Your task to perform on an android device: change your default location settings in chrome Image 0: 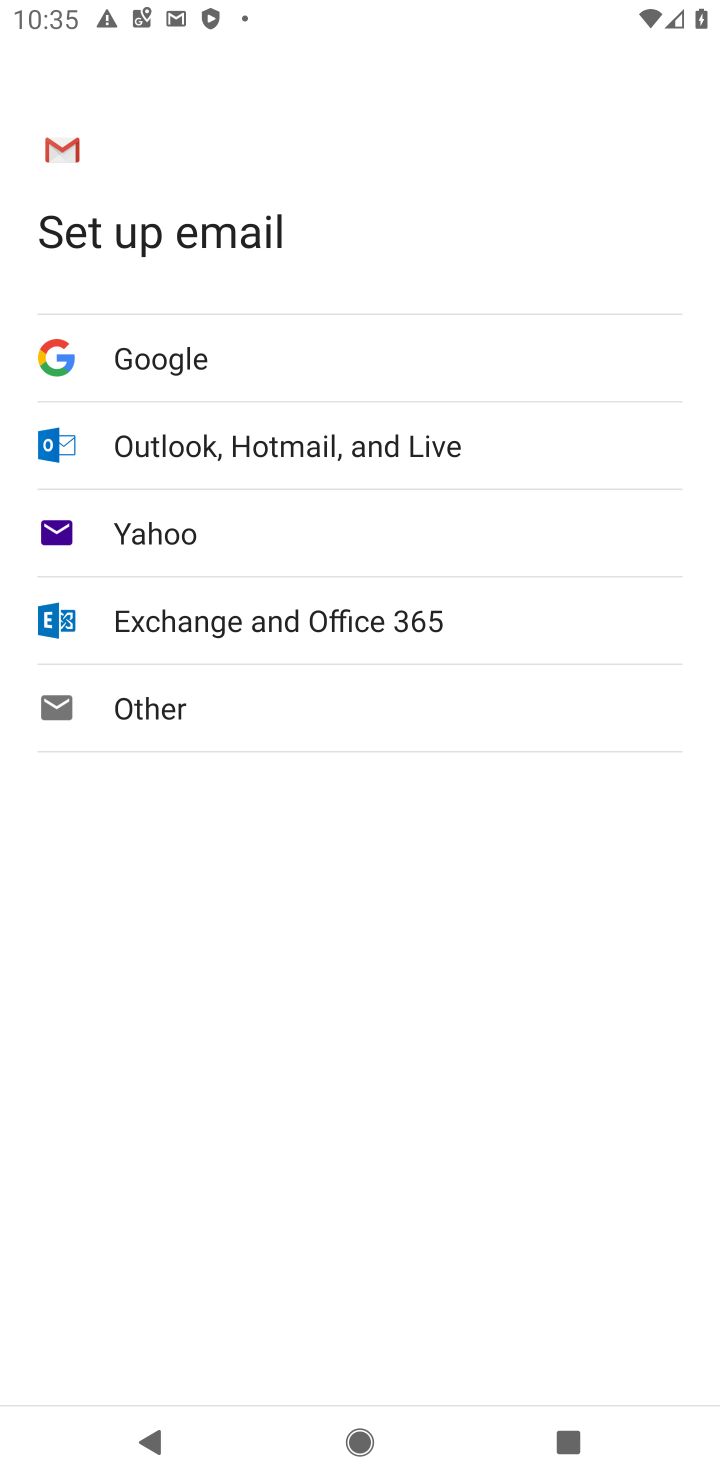
Step 0: press home button
Your task to perform on an android device: change your default location settings in chrome Image 1: 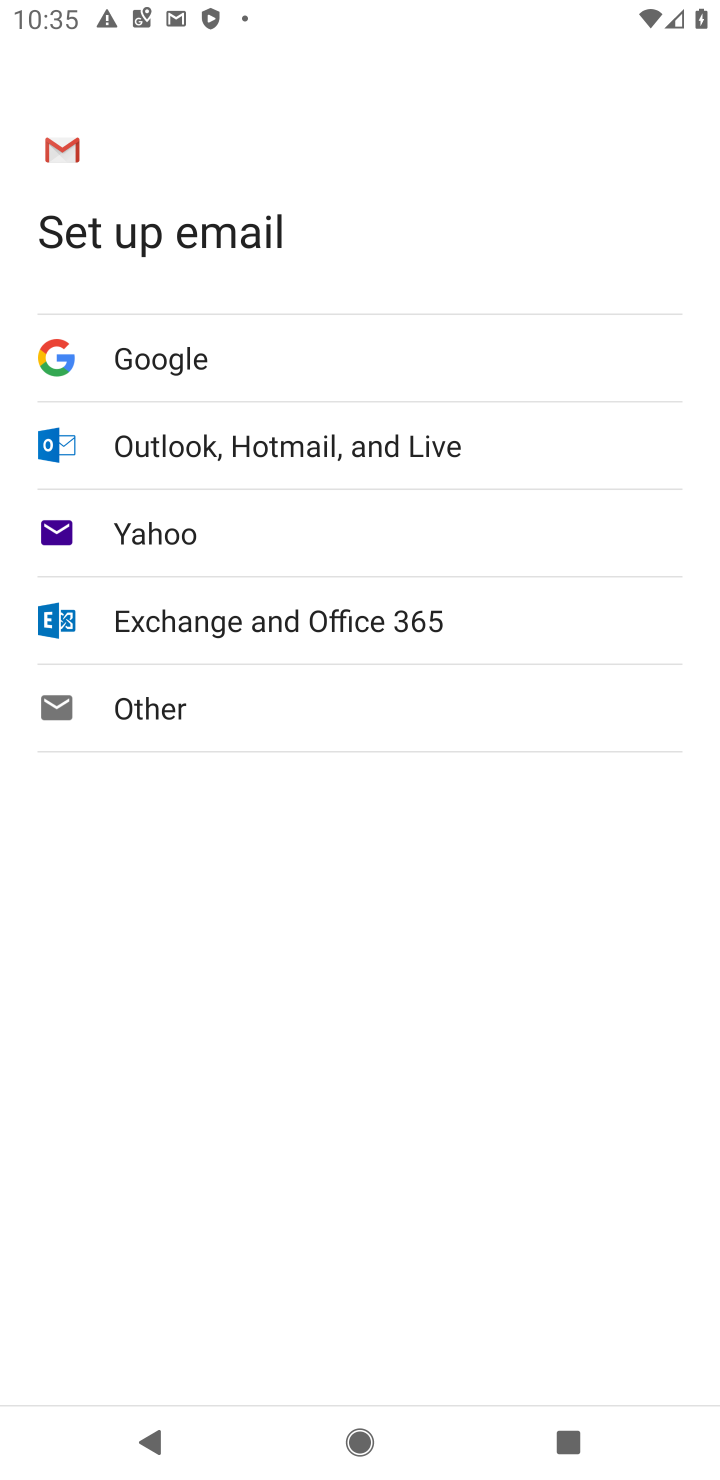
Step 1: drag from (294, 1048) to (589, 0)
Your task to perform on an android device: change your default location settings in chrome Image 2: 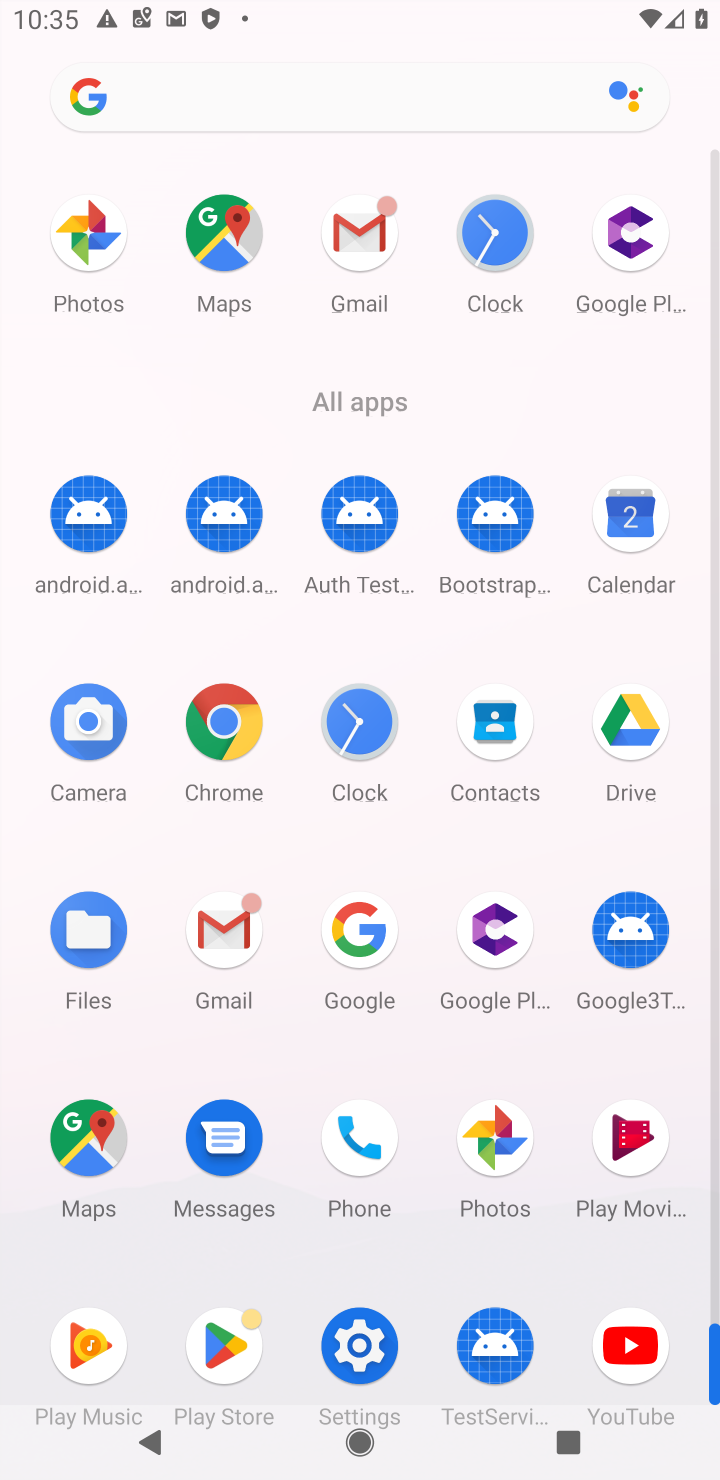
Step 2: click (215, 688)
Your task to perform on an android device: change your default location settings in chrome Image 3: 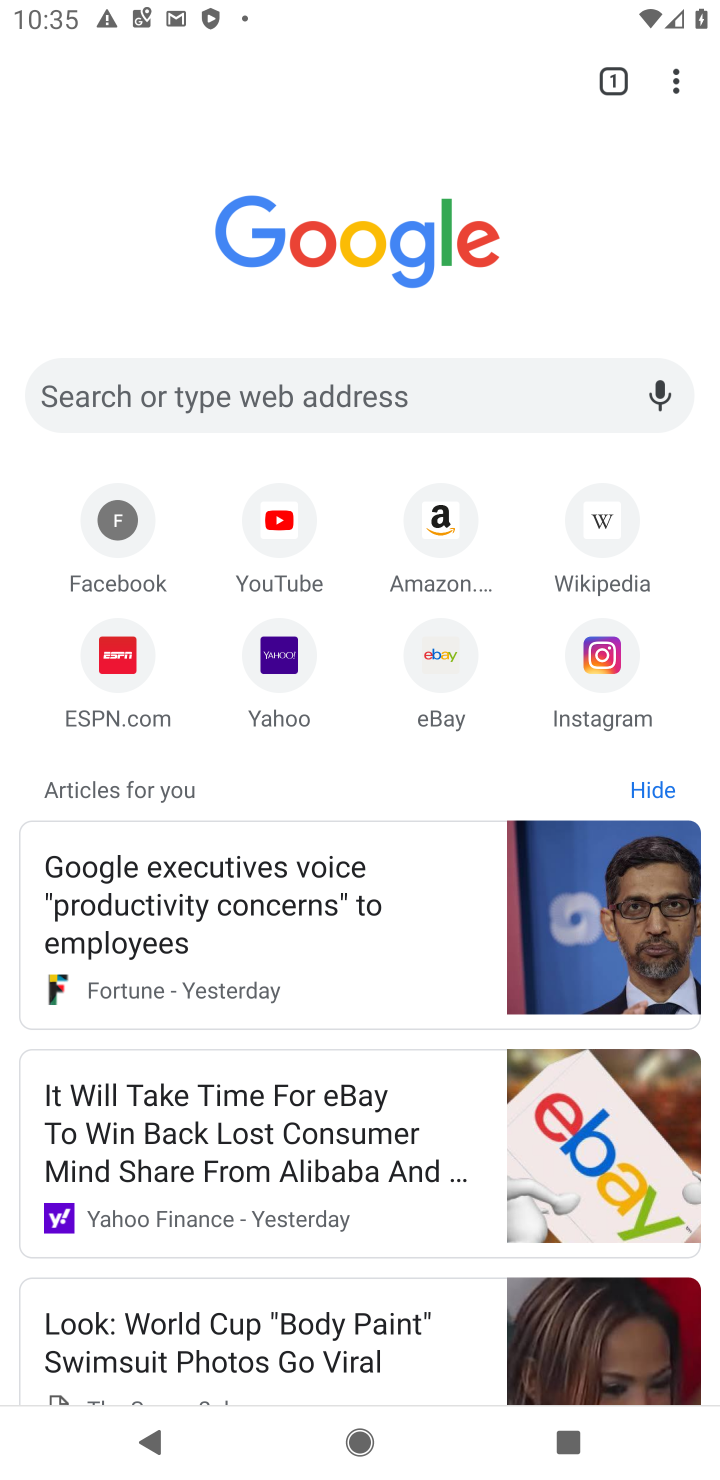
Step 3: click (211, 706)
Your task to perform on an android device: change your default location settings in chrome Image 4: 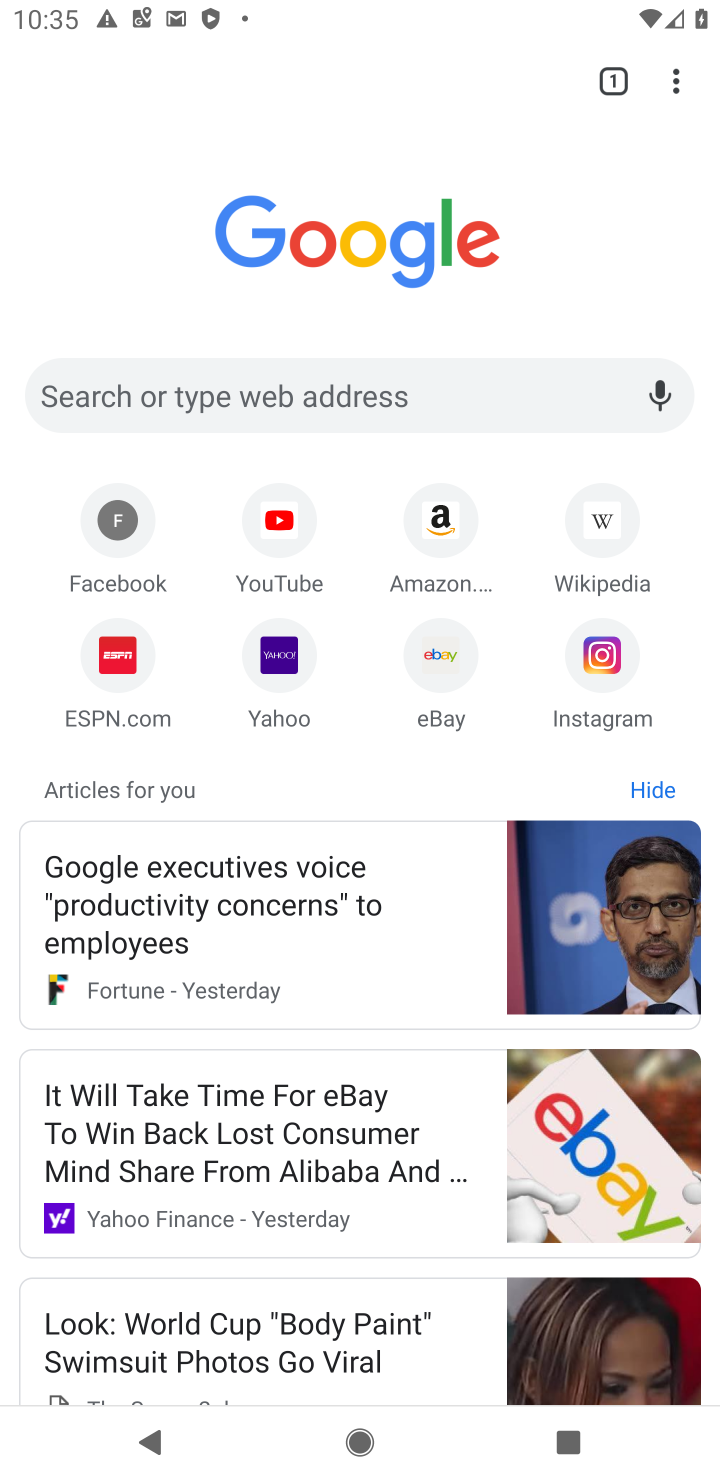
Step 4: drag from (231, 690) to (302, 330)
Your task to perform on an android device: change your default location settings in chrome Image 5: 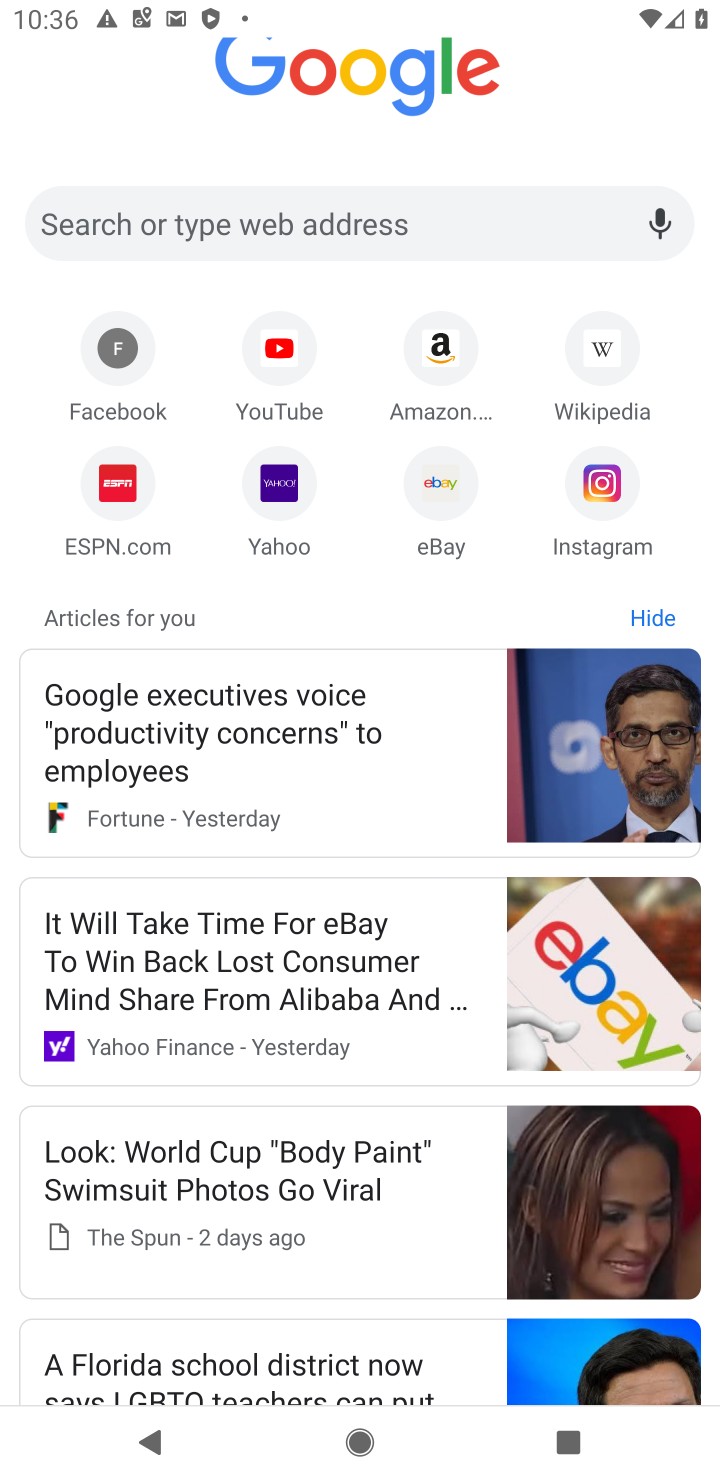
Step 5: drag from (639, 185) to (470, 1019)
Your task to perform on an android device: change your default location settings in chrome Image 6: 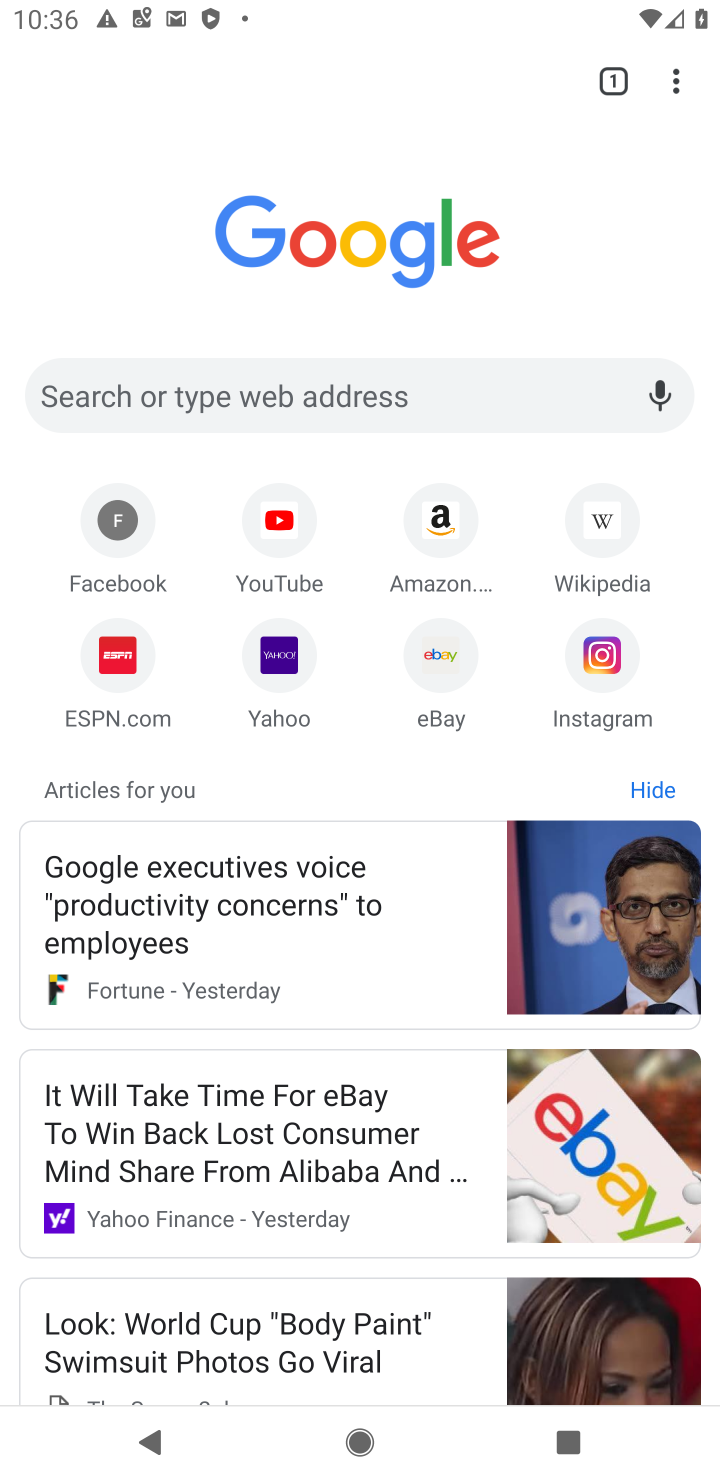
Step 6: drag from (684, 84) to (416, 783)
Your task to perform on an android device: change your default location settings in chrome Image 7: 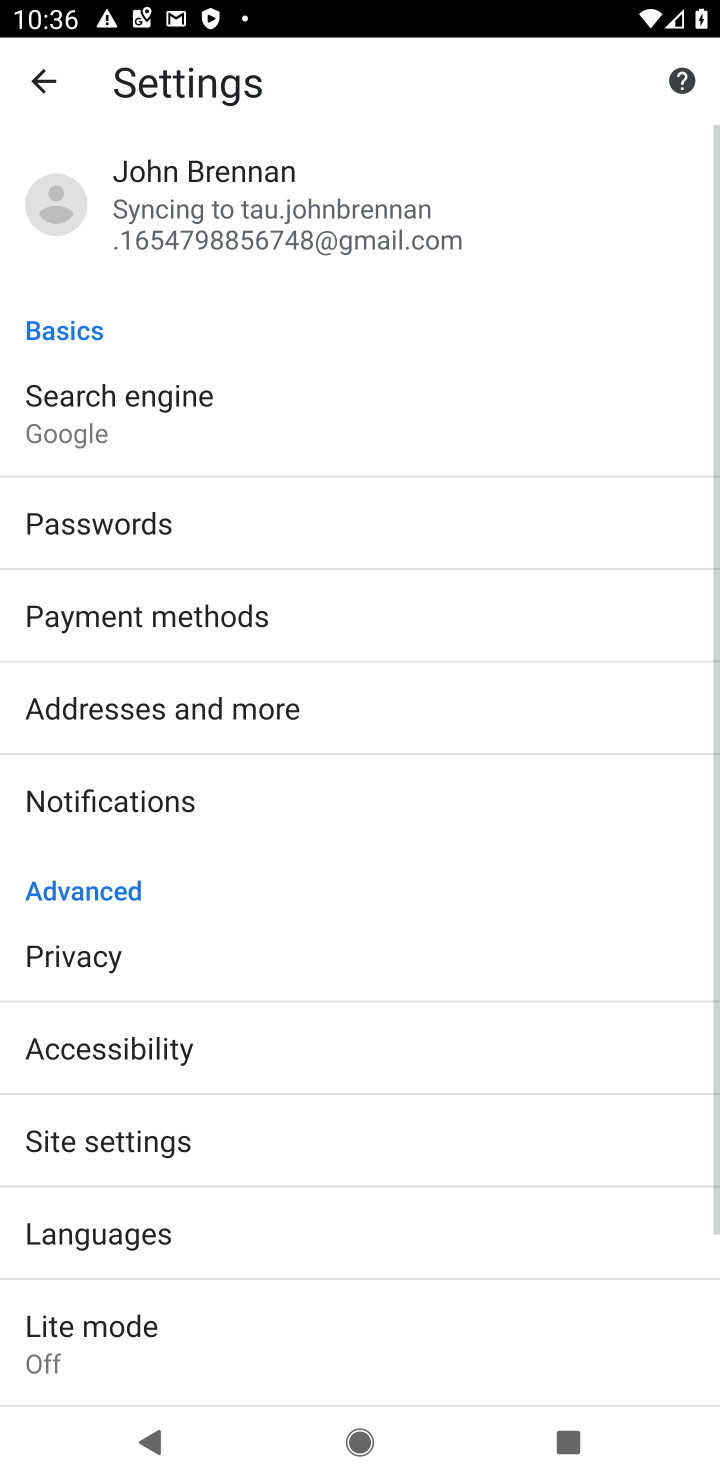
Step 7: drag from (474, 1262) to (525, 910)
Your task to perform on an android device: change your default location settings in chrome Image 8: 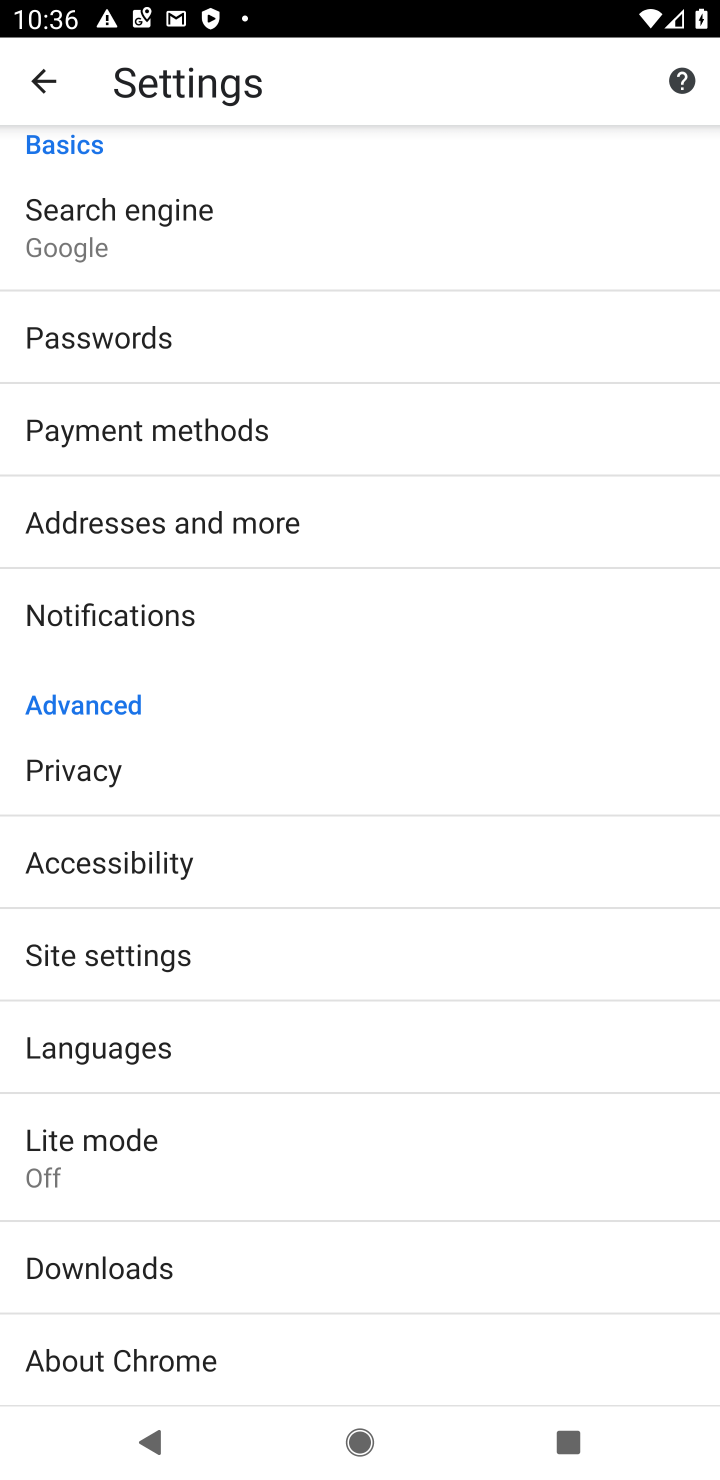
Step 8: click (235, 964)
Your task to perform on an android device: change your default location settings in chrome Image 9: 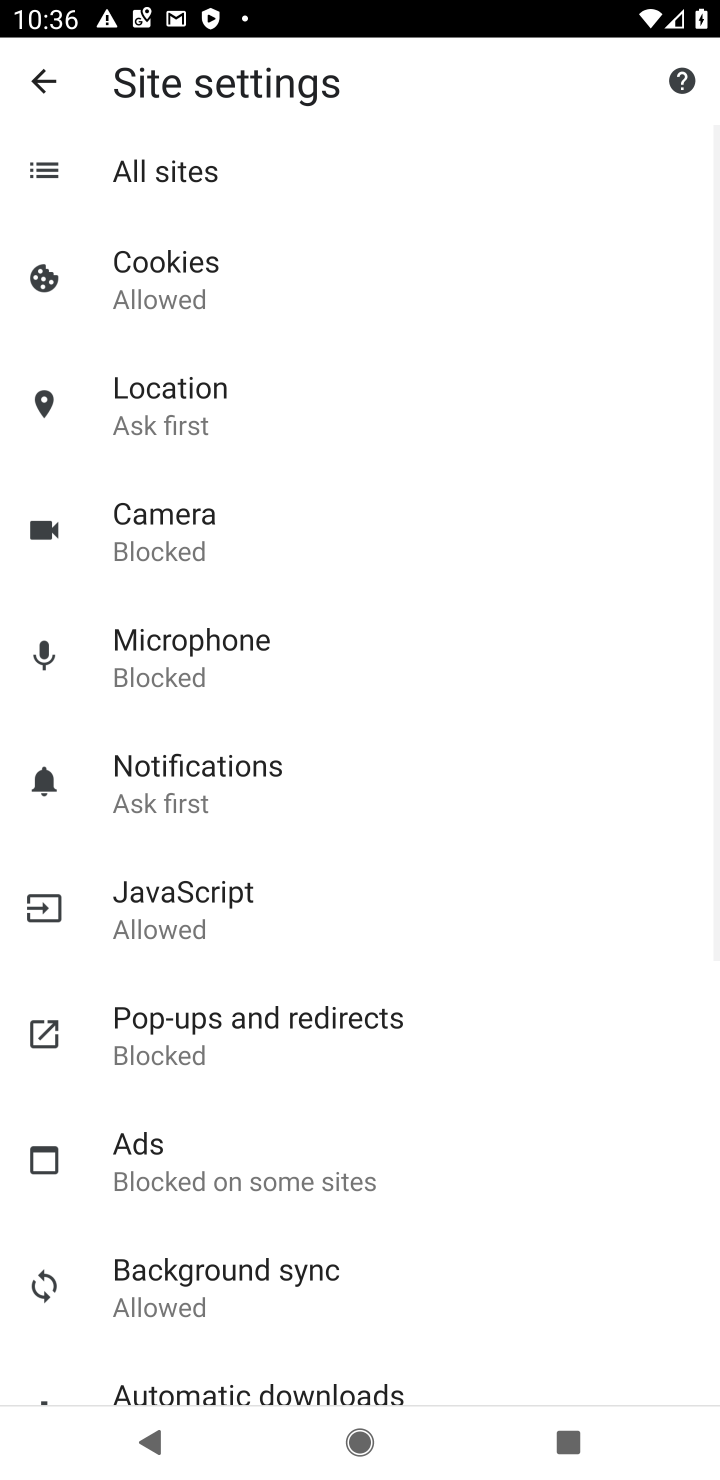
Step 9: click (177, 400)
Your task to perform on an android device: change your default location settings in chrome Image 10: 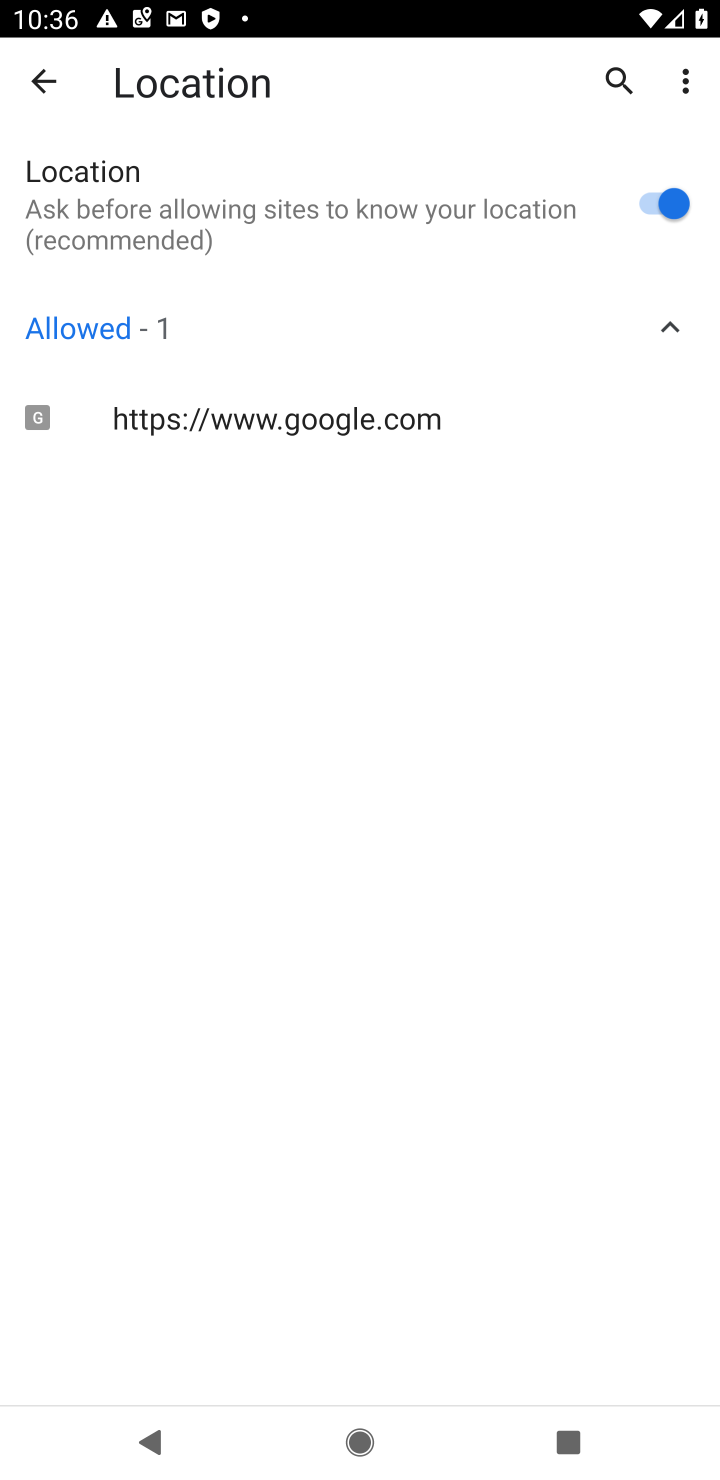
Step 10: click (674, 199)
Your task to perform on an android device: change your default location settings in chrome Image 11: 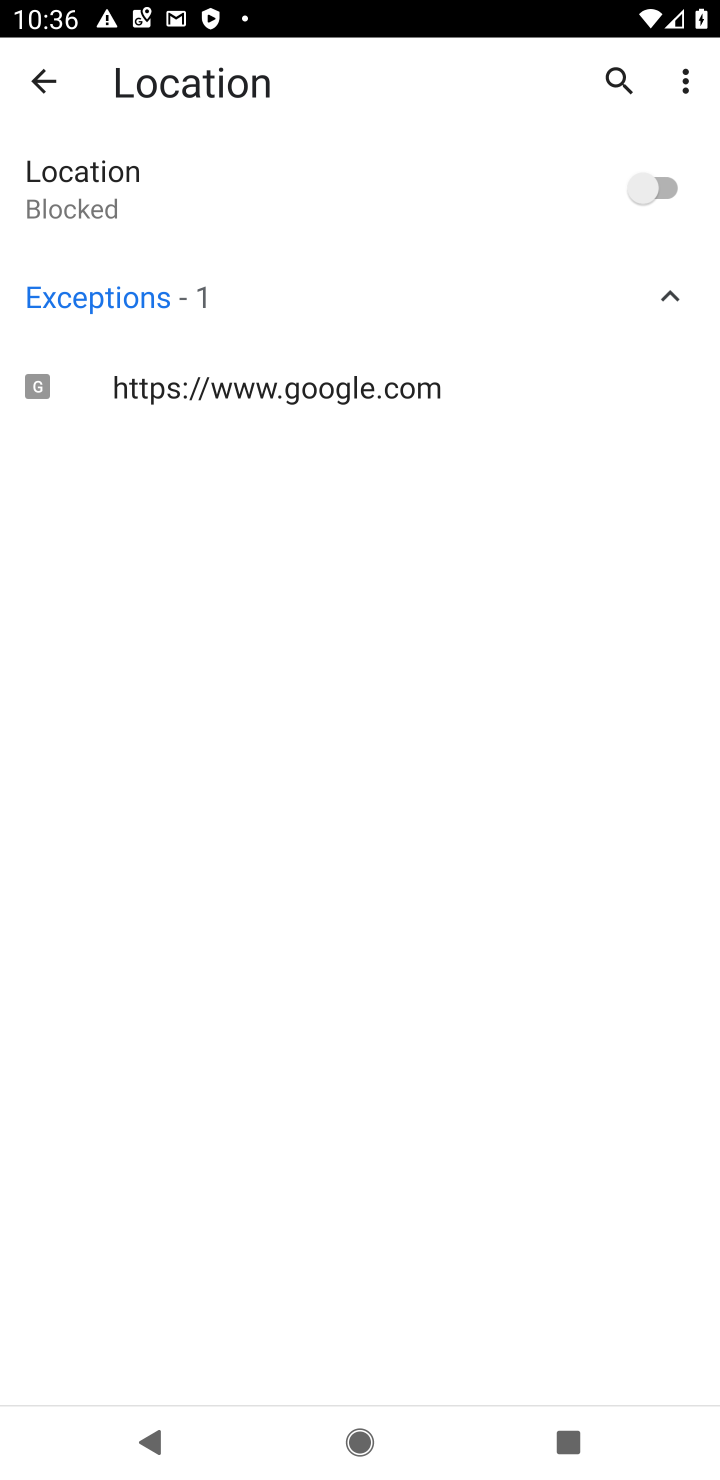
Step 11: task complete